Your task to perform on an android device: Turn off the flashlight Image 0: 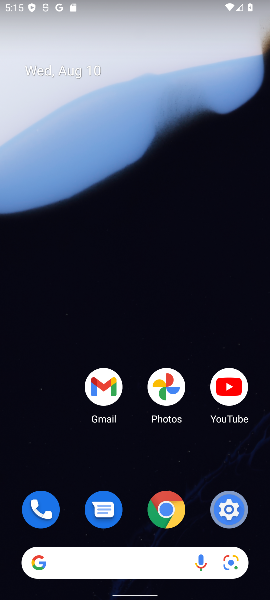
Step 0: drag from (148, 465) to (195, 42)
Your task to perform on an android device: Turn off the flashlight Image 1: 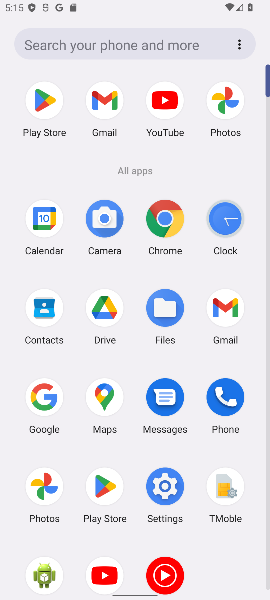
Step 1: click (163, 485)
Your task to perform on an android device: Turn off the flashlight Image 2: 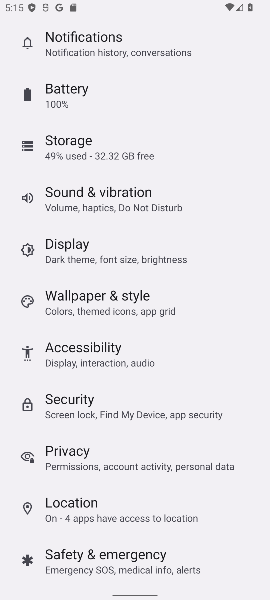
Step 2: click (66, 244)
Your task to perform on an android device: Turn off the flashlight Image 3: 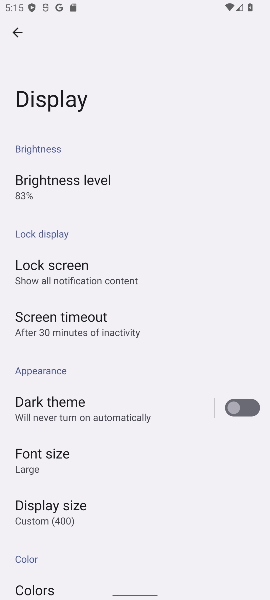
Step 3: click (80, 327)
Your task to perform on an android device: Turn off the flashlight Image 4: 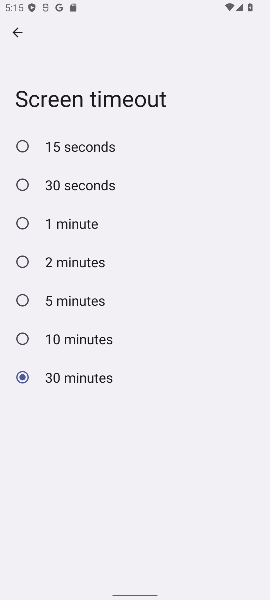
Step 4: task complete